Your task to perform on an android device: find photos in the google photos app Image 0: 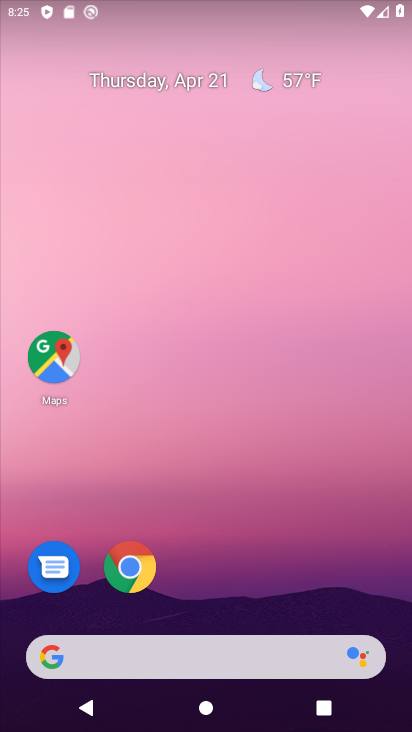
Step 0: drag from (213, 633) to (192, 5)
Your task to perform on an android device: find photos in the google photos app Image 1: 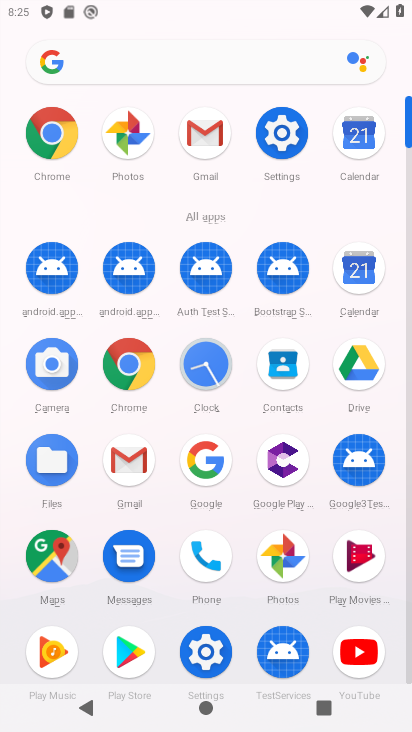
Step 1: click (281, 548)
Your task to perform on an android device: find photos in the google photos app Image 2: 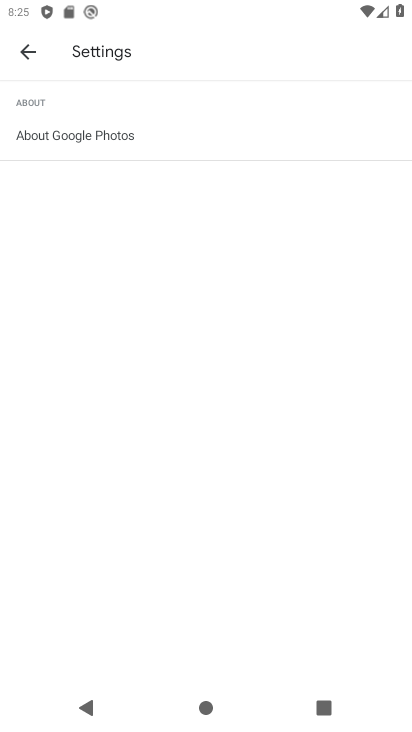
Step 2: click (32, 55)
Your task to perform on an android device: find photos in the google photos app Image 3: 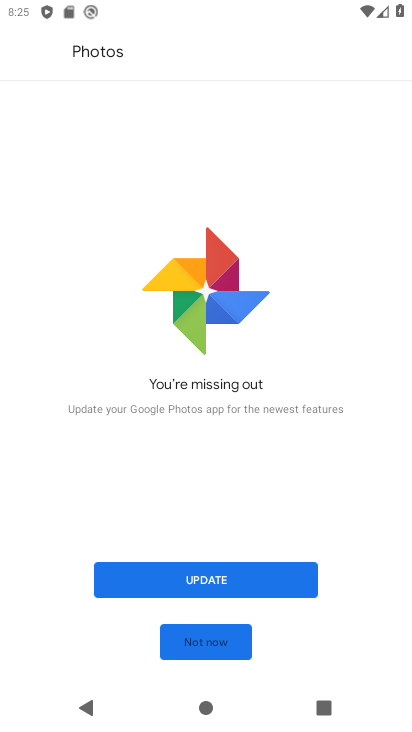
Step 3: click (207, 636)
Your task to perform on an android device: find photos in the google photos app Image 4: 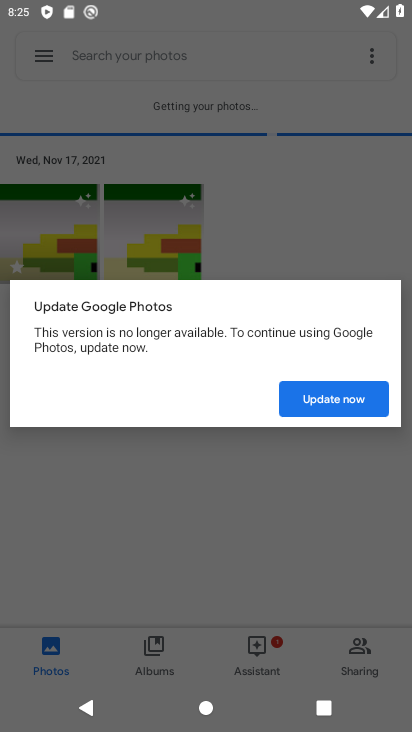
Step 4: click (338, 388)
Your task to perform on an android device: find photos in the google photos app Image 5: 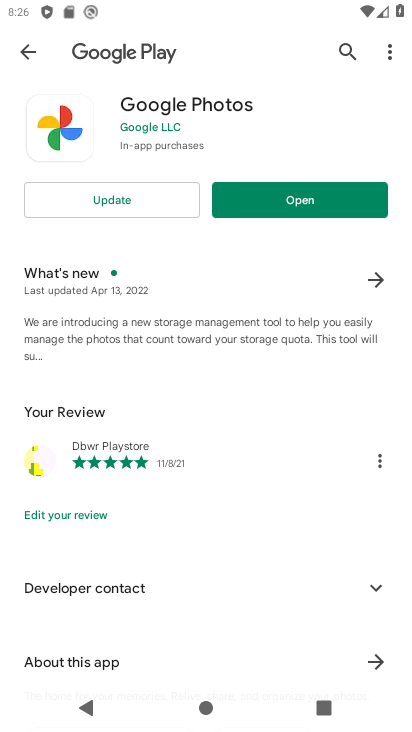
Step 5: click (292, 199)
Your task to perform on an android device: find photos in the google photos app Image 6: 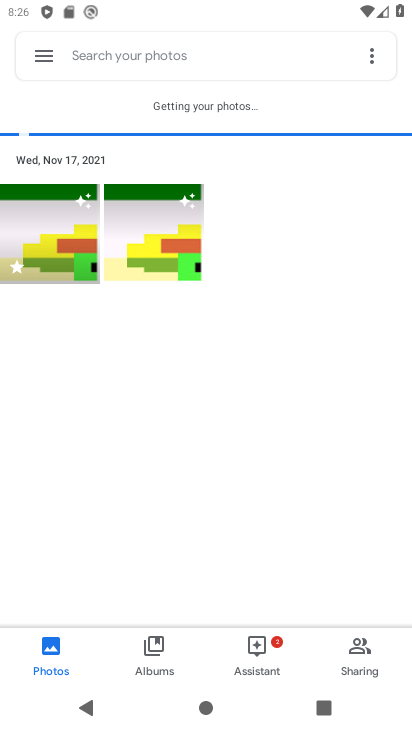
Step 6: task complete